Your task to perform on an android device: Open the calendar app, open the side menu, and click the "Day" option Image 0: 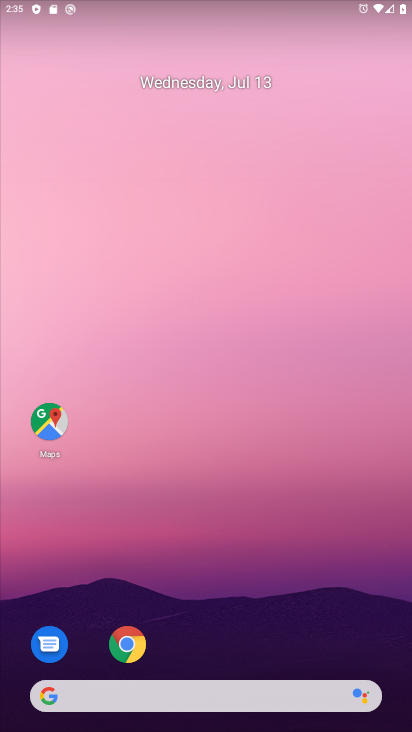
Step 0: drag from (176, 714) to (174, 643)
Your task to perform on an android device: Open the calendar app, open the side menu, and click the "Day" option Image 1: 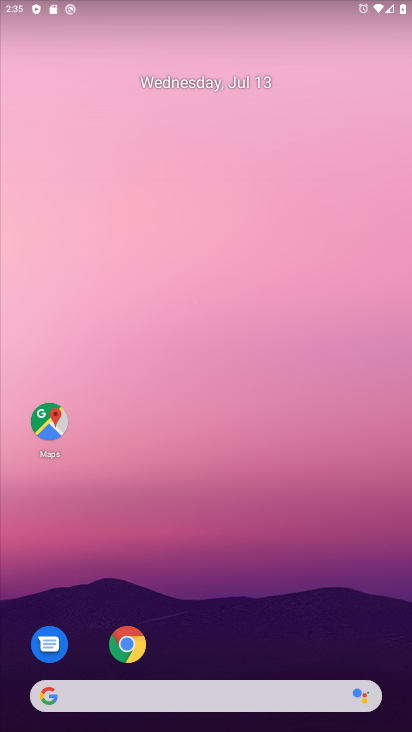
Step 1: drag from (140, 722) to (145, 561)
Your task to perform on an android device: Open the calendar app, open the side menu, and click the "Day" option Image 2: 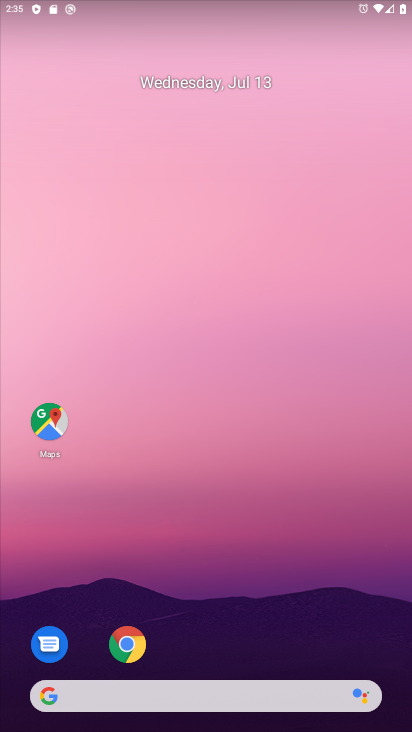
Step 2: drag from (123, 705) to (188, 326)
Your task to perform on an android device: Open the calendar app, open the side menu, and click the "Day" option Image 3: 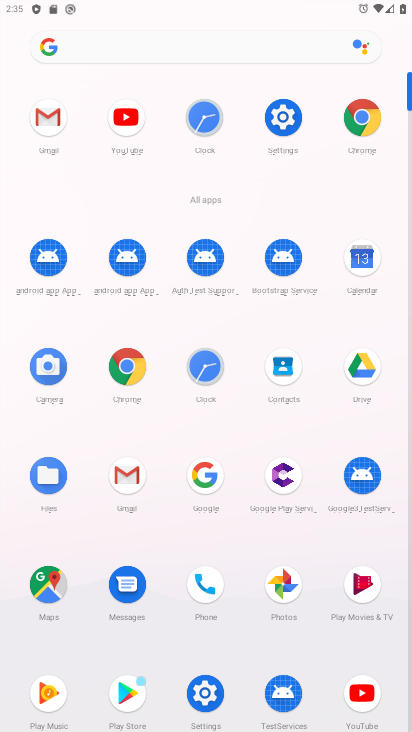
Step 3: click (359, 261)
Your task to perform on an android device: Open the calendar app, open the side menu, and click the "Day" option Image 4: 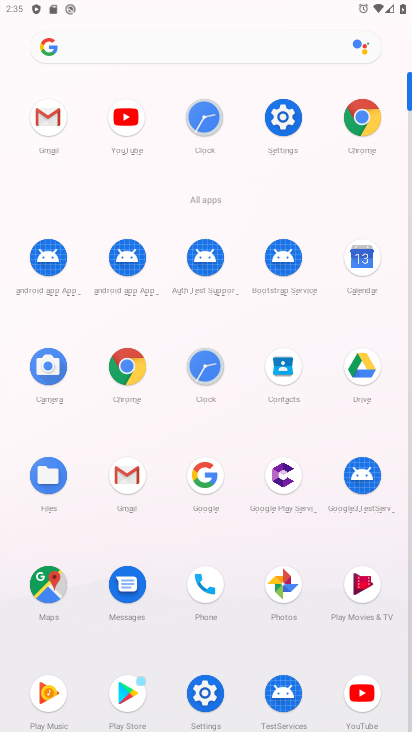
Step 4: click (359, 261)
Your task to perform on an android device: Open the calendar app, open the side menu, and click the "Day" option Image 5: 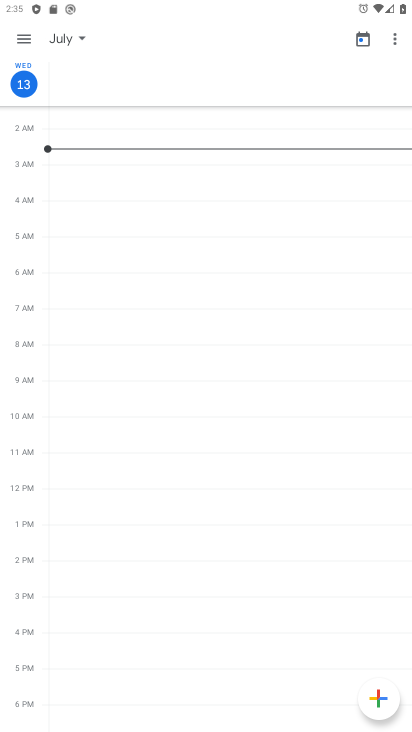
Step 5: click (21, 39)
Your task to perform on an android device: Open the calendar app, open the side menu, and click the "Day" option Image 6: 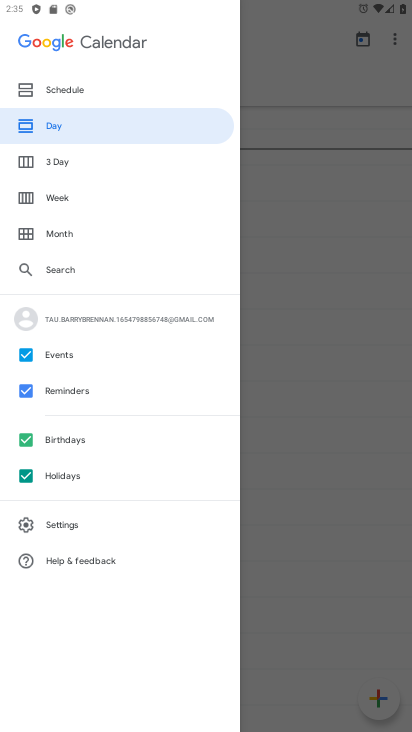
Step 6: click (58, 128)
Your task to perform on an android device: Open the calendar app, open the side menu, and click the "Day" option Image 7: 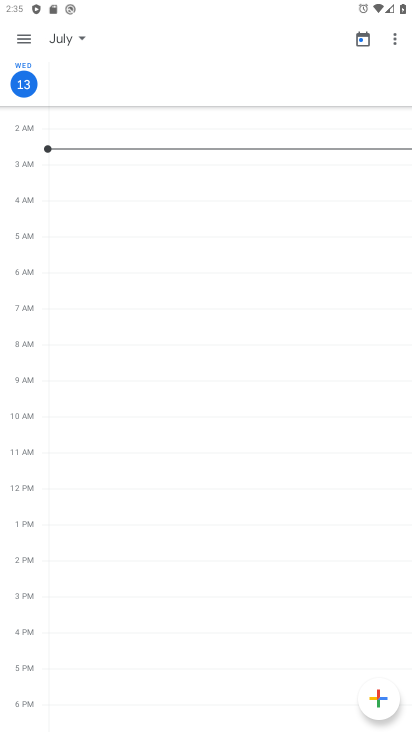
Step 7: task complete